Your task to perform on an android device: toggle improve location accuracy Image 0: 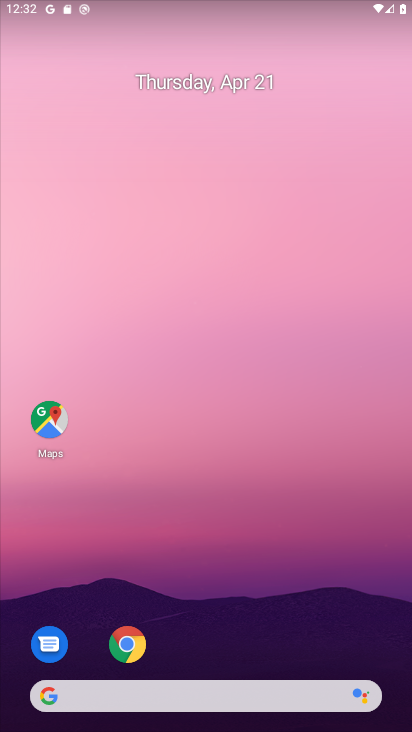
Step 0: drag from (278, 499) to (241, 61)
Your task to perform on an android device: toggle improve location accuracy Image 1: 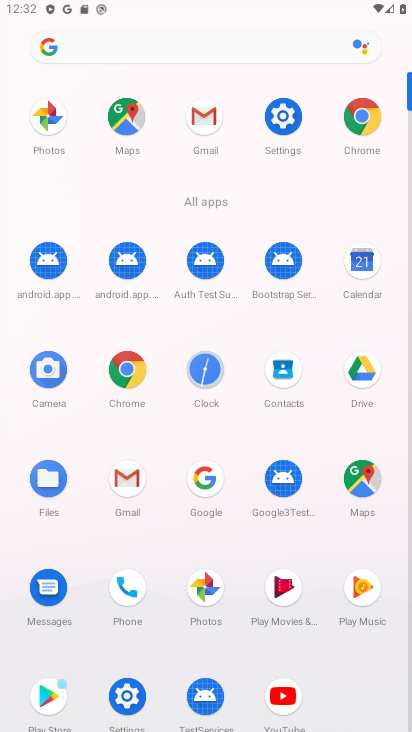
Step 1: click (302, 117)
Your task to perform on an android device: toggle improve location accuracy Image 2: 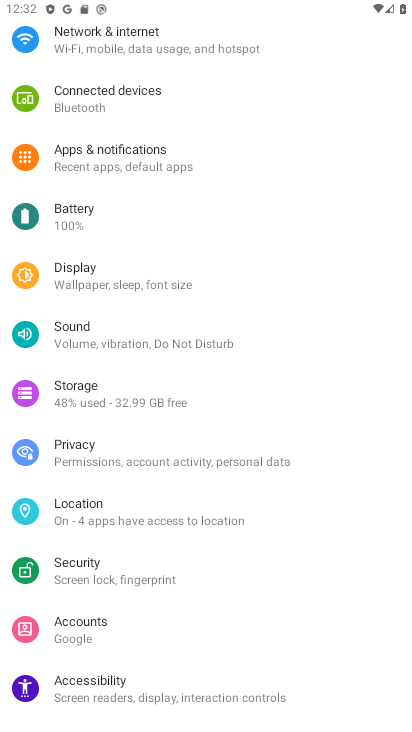
Step 2: click (179, 514)
Your task to perform on an android device: toggle improve location accuracy Image 3: 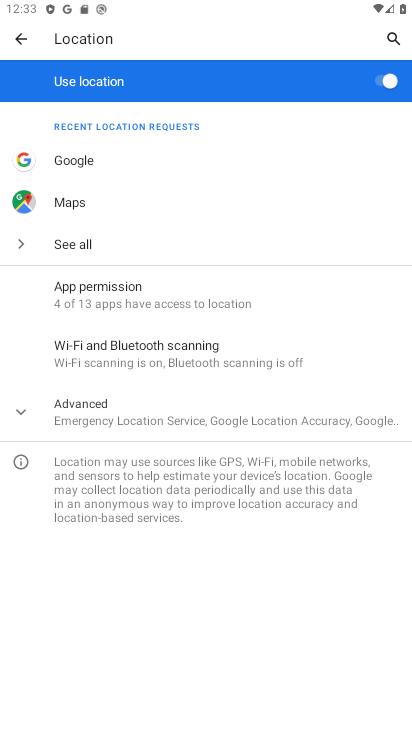
Step 3: click (210, 418)
Your task to perform on an android device: toggle improve location accuracy Image 4: 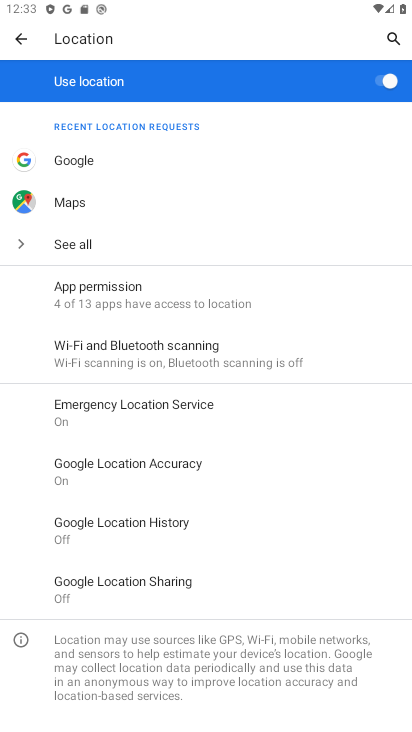
Step 4: click (226, 468)
Your task to perform on an android device: toggle improve location accuracy Image 5: 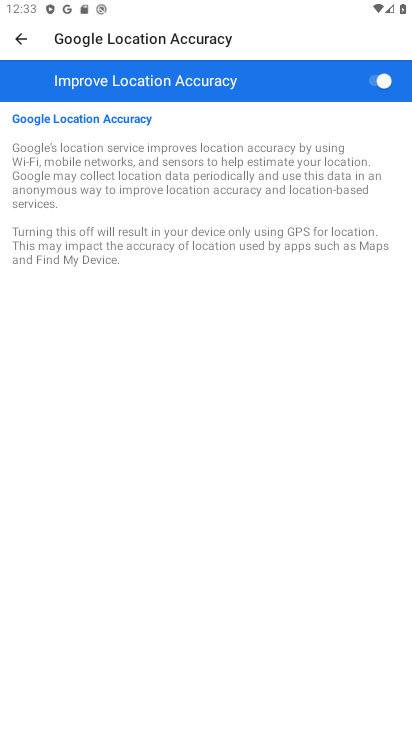
Step 5: click (375, 88)
Your task to perform on an android device: toggle improve location accuracy Image 6: 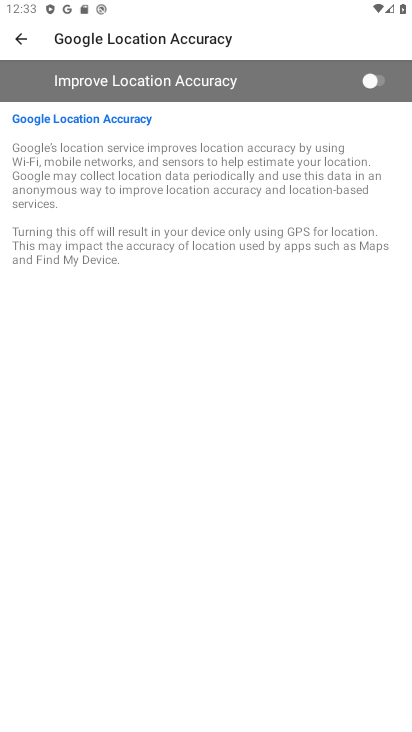
Step 6: task complete